Your task to perform on an android device: Open the calendar and show me this week's events? Image 0: 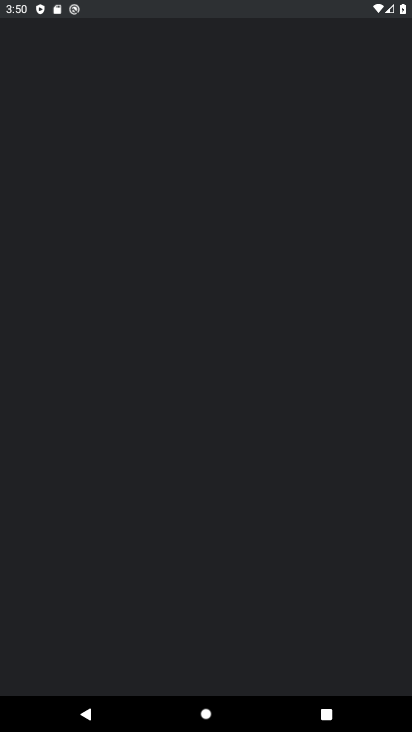
Step 0: drag from (176, 670) to (209, 532)
Your task to perform on an android device: Open the calendar and show me this week's events? Image 1: 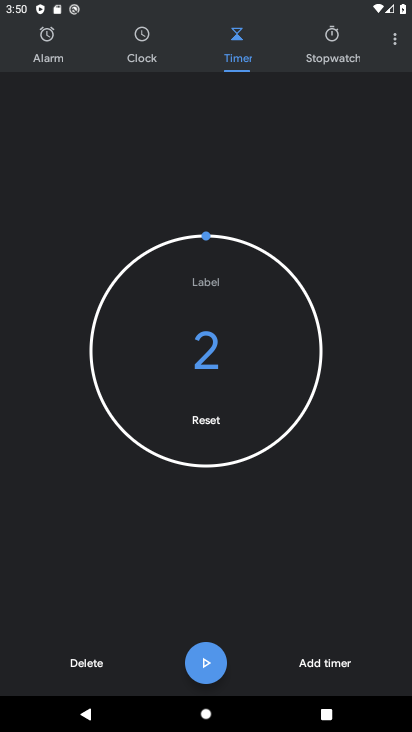
Step 1: press home button
Your task to perform on an android device: Open the calendar and show me this week's events? Image 2: 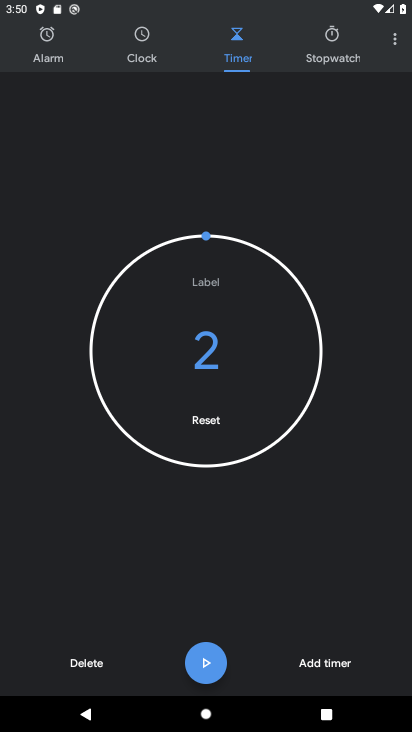
Step 2: press home button
Your task to perform on an android device: Open the calendar and show me this week's events? Image 3: 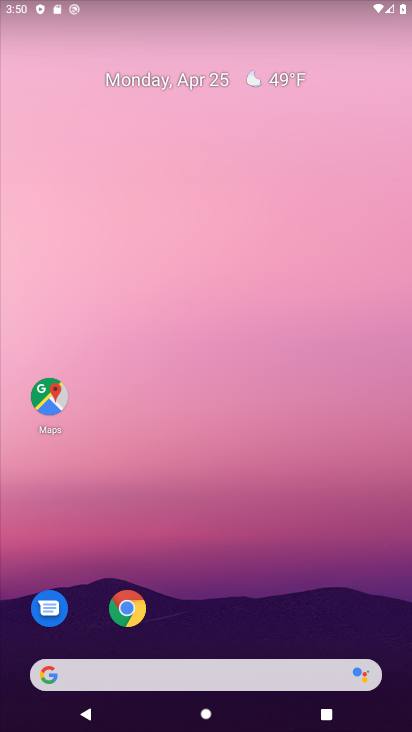
Step 3: drag from (261, 623) to (291, 135)
Your task to perform on an android device: Open the calendar and show me this week's events? Image 4: 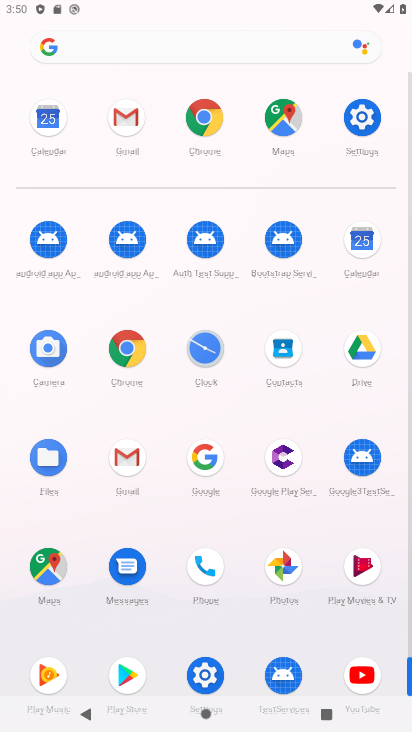
Step 4: click (366, 243)
Your task to perform on an android device: Open the calendar and show me this week's events? Image 5: 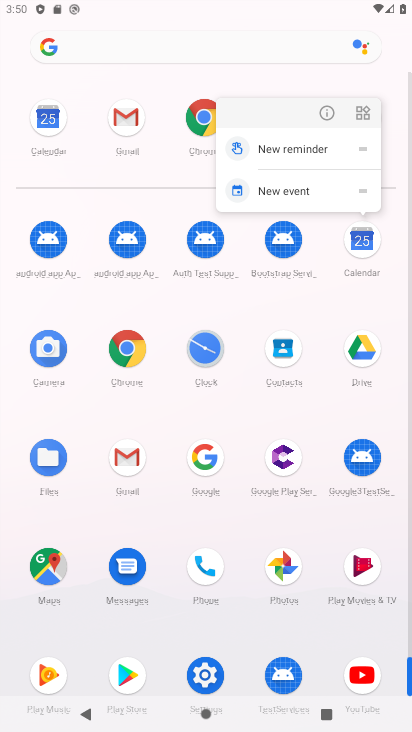
Step 5: click (366, 243)
Your task to perform on an android device: Open the calendar and show me this week's events? Image 6: 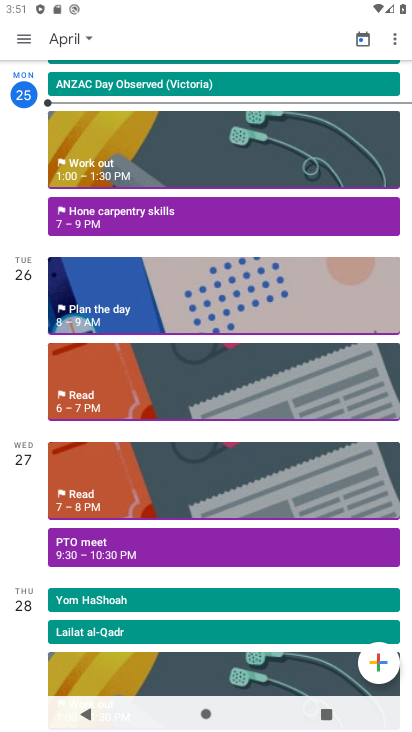
Step 6: task complete